Your task to perform on an android device: Go to battery settings Image 0: 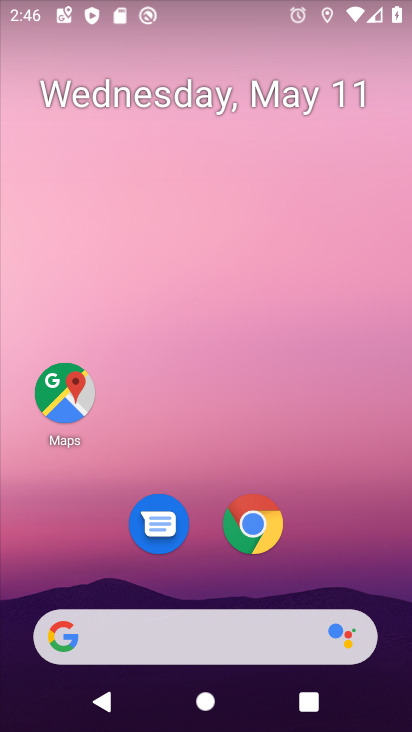
Step 0: drag from (335, 532) to (357, 79)
Your task to perform on an android device: Go to battery settings Image 1: 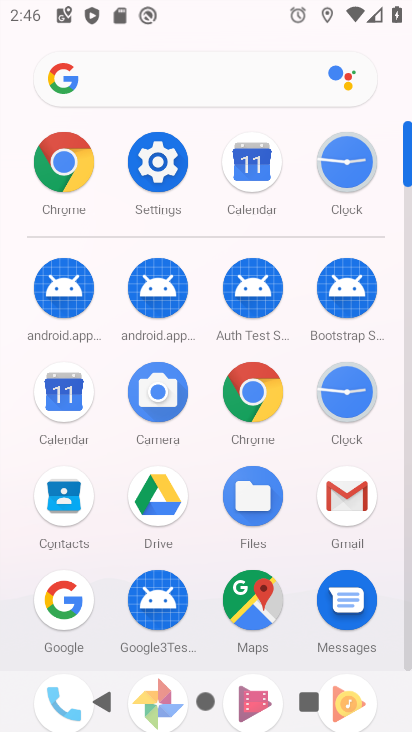
Step 1: click (166, 173)
Your task to perform on an android device: Go to battery settings Image 2: 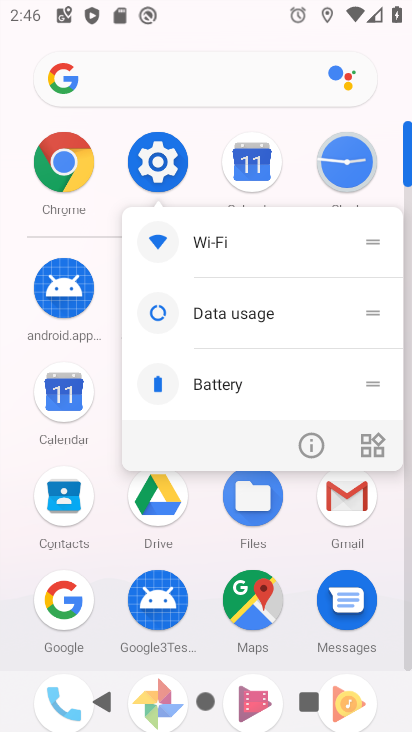
Step 2: click (156, 149)
Your task to perform on an android device: Go to battery settings Image 3: 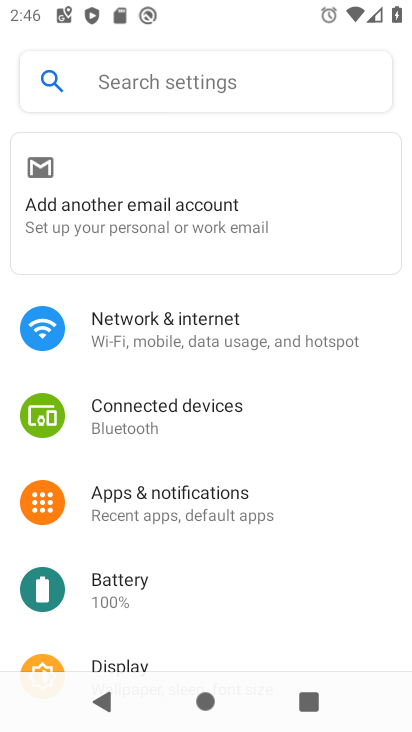
Step 3: click (129, 587)
Your task to perform on an android device: Go to battery settings Image 4: 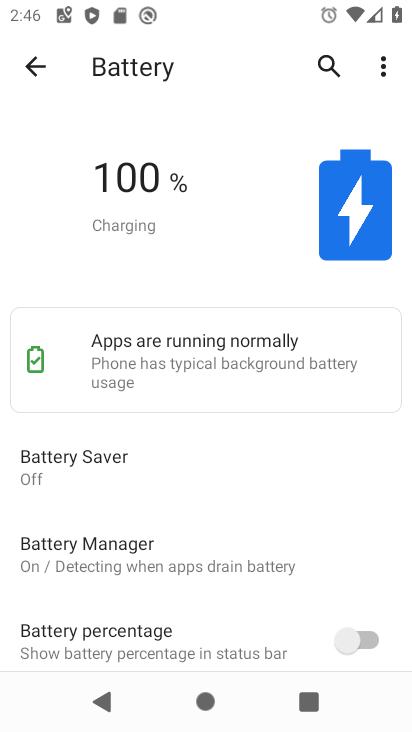
Step 4: task complete